Your task to perform on an android device: Open the phone app and click the voicemail tab. Image 0: 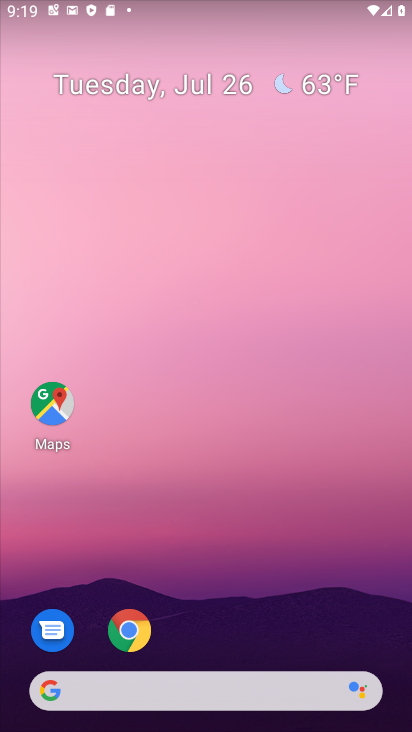
Step 0: drag from (206, 651) to (246, 6)
Your task to perform on an android device: Open the phone app and click the voicemail tab. Image 1: 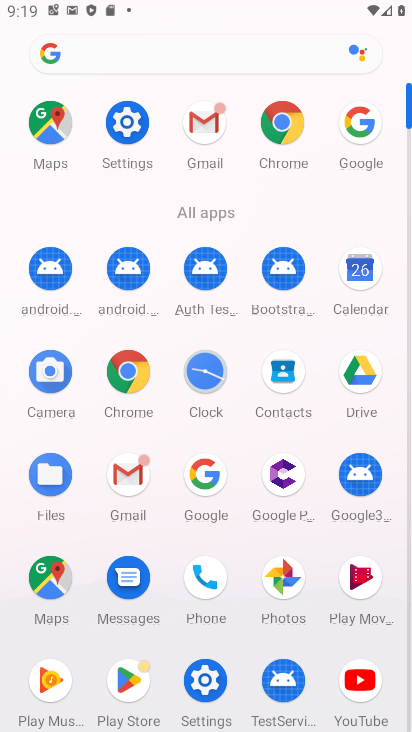
Step 1: click (202, 567)
Your task to perform on an android device: Open the phone app and click the voicemail tab. Image 2: 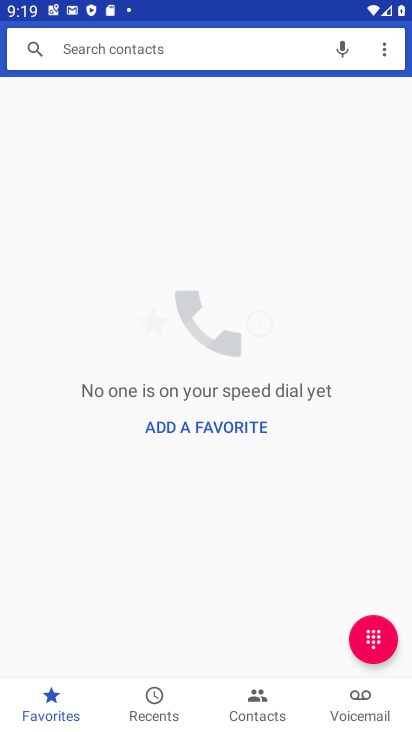
Step 2: click (359, 689)
Your task to perform on an android device: Open the phone app and click the voicemail tab. Image 3: 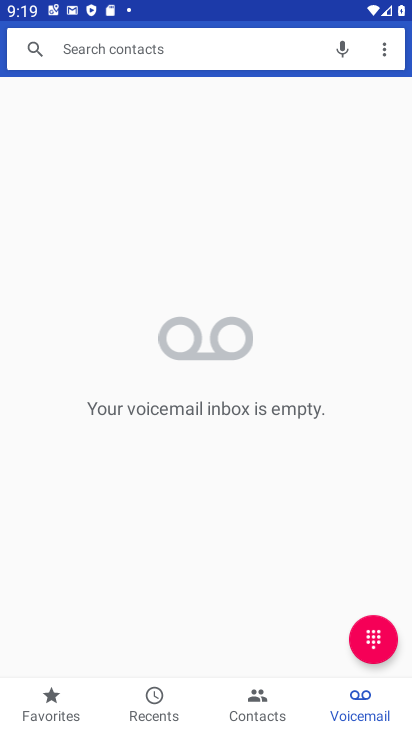
Step 3: task complete